Your task to perform on an android device: What is the news today? Image 0: 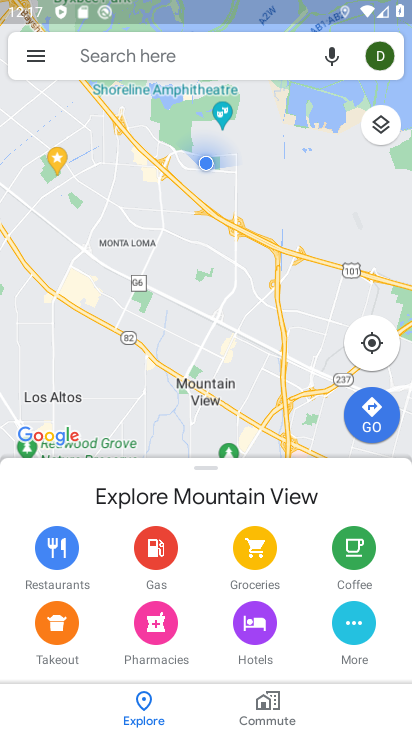
Step 0: press home button
Your task to perform on an android device: What is the news today? Image 1: 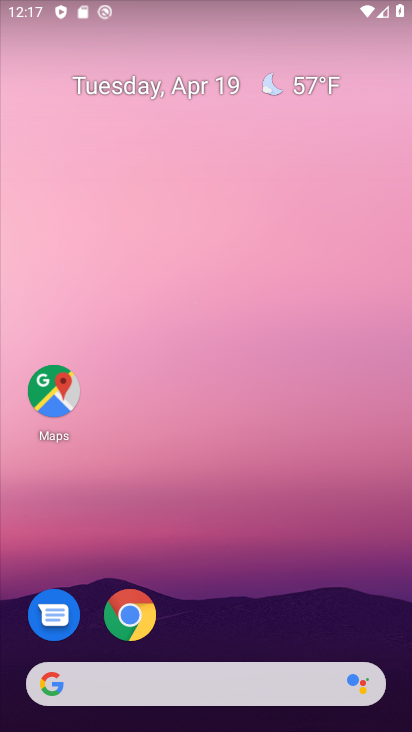
Step 1: drag from (216, 520) to (250, 177)
Your task to perform on an android device: What is the news today? Image 2: 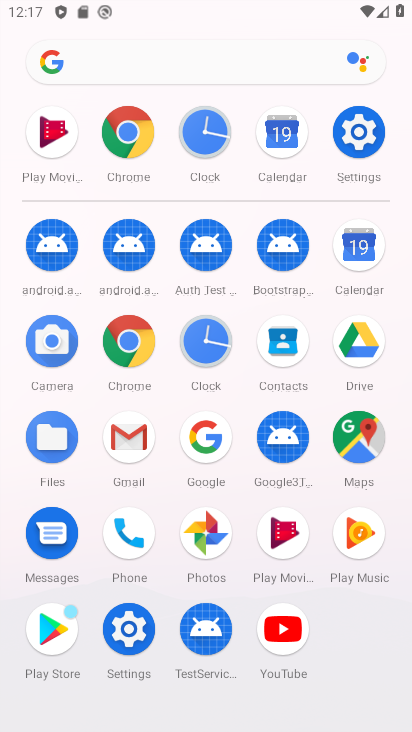
Step 2: click (192, 426)
Your task to perform on an android device: What is the news today? Image 3: 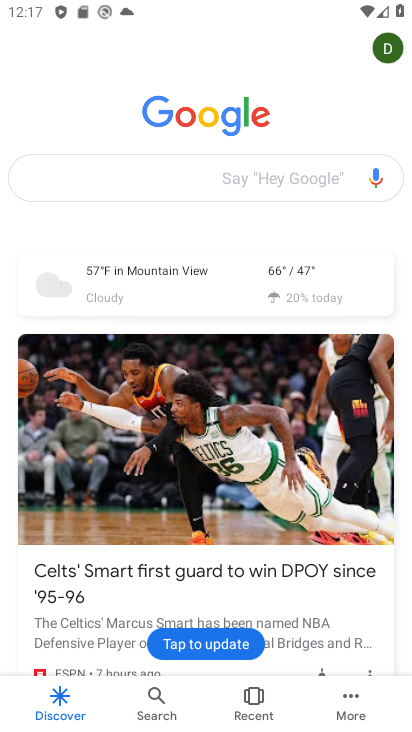
Step 3: task complete